Your task to perform on an android device: change the clock display to digital Image 0: 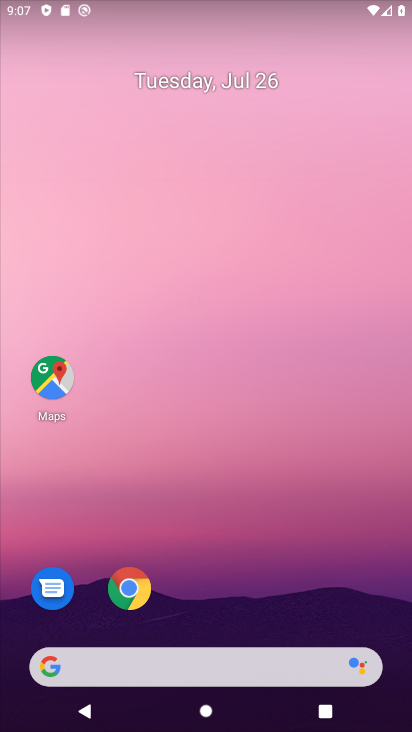
Step 0: drag from (177, 675) to (140, 235)
Your task to perform on an android device: change the clock display to digital Image 1: 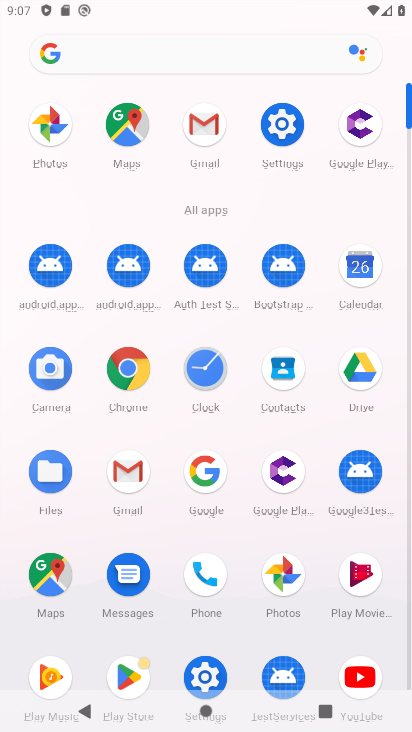
Step 1: click (210, 365)
Your task to perform on an android device: change the clock display to digital Image 2: 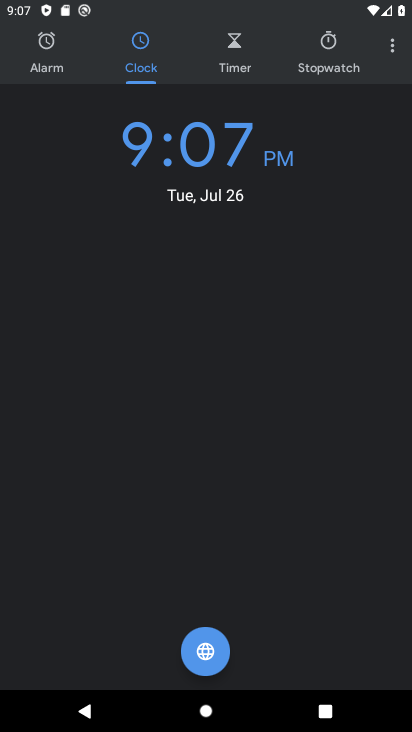
Step 2: click (390, 49)
Your task to perform on an android device: change the clock display to digital Image 3: 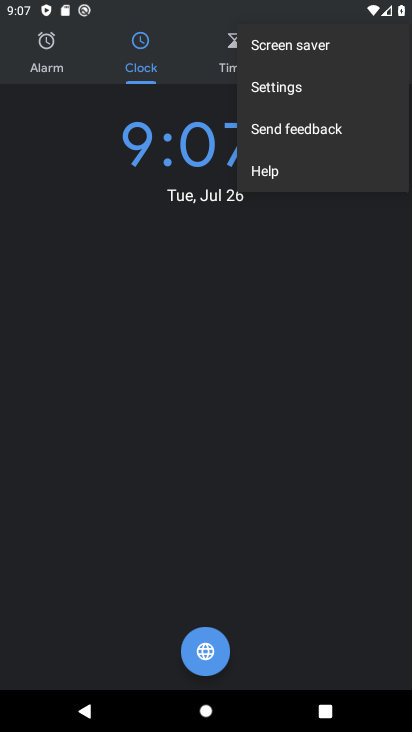
Step 3: click (274, 80)
Your task to perform on an android device: change the clock display to digital Image 4: 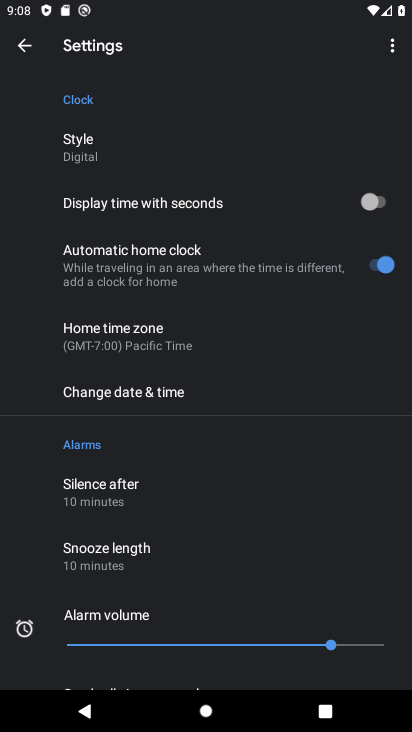
Step 4: task complete